Your task to perform on an android device: turn on the 24-hour format for clock Image 0: 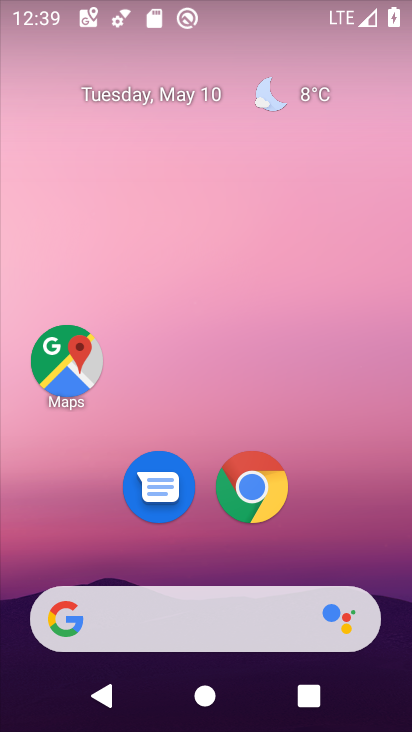
Step 0: drag from (209, 553) to (226, 53)
Your task to perform on an android device: turn on the 24-hour format for clock Image 1: 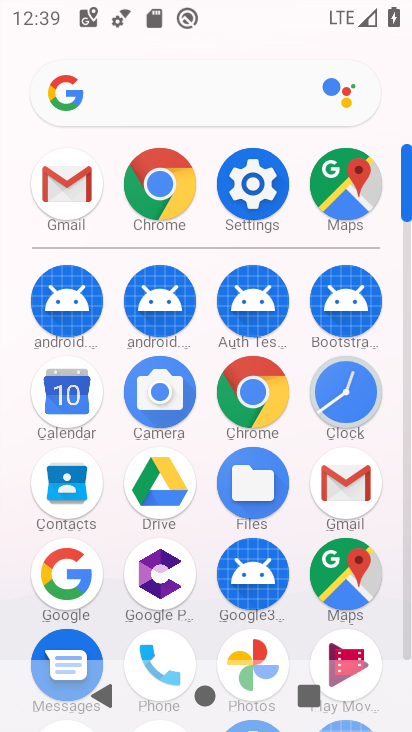
Step 1: drag from (303, 611) to (295, 161)
Your task to perform on an android device: turn on the 24-hour format for clock Image 2: 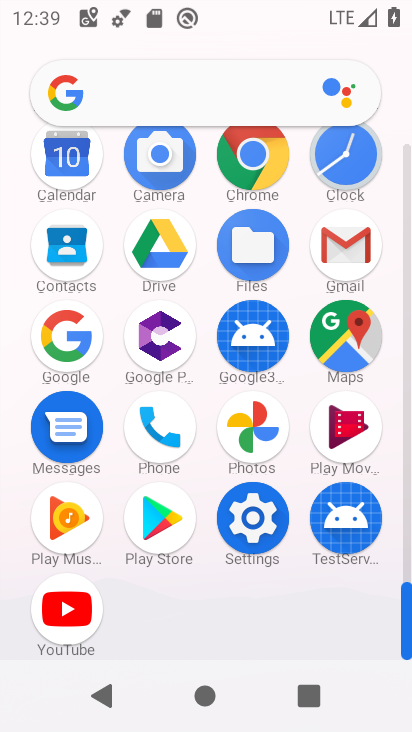
Step 2: click (347, 139)
Your task to perform on an android device: turn on the 24-hour format for clock Image 3: 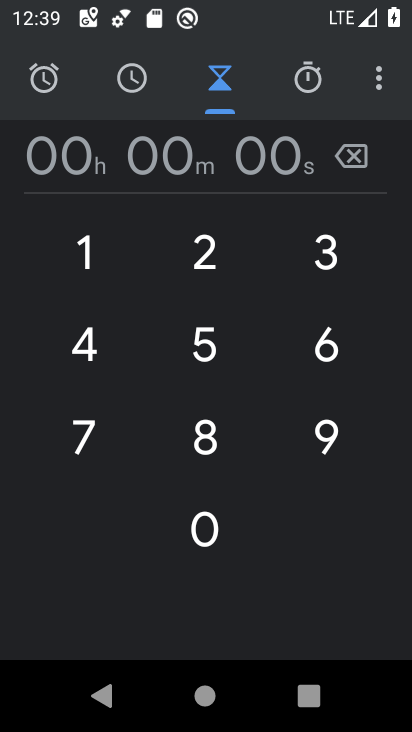
Step 3: click (383, 77)
Your task to perform on an android device: turn on the 24-hour format for clock Image 4: 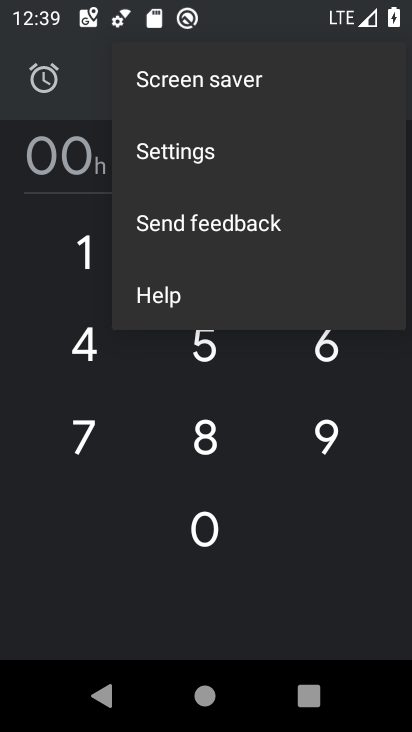
Step 4: click (224, 152)
Your task to perform on an android device: turn on the 24-hour format for clock Image 5: 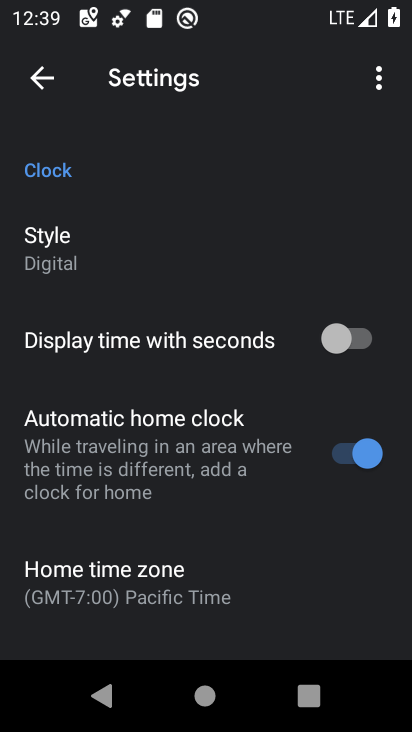
Step 5: drag from (196, 560) to (209, 100)
Your task to perform on an android device: turn on the 24-hour format for clock Image 6: 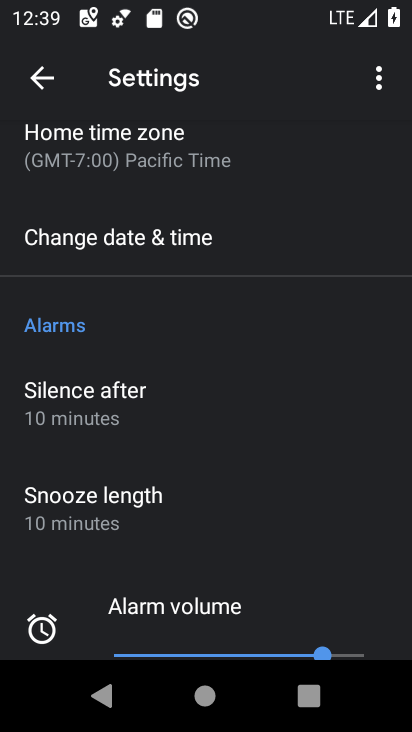
Step 6: click (221, 237)
Your task to perform on an android device: turn on the 24-hour format for clock Image 7: 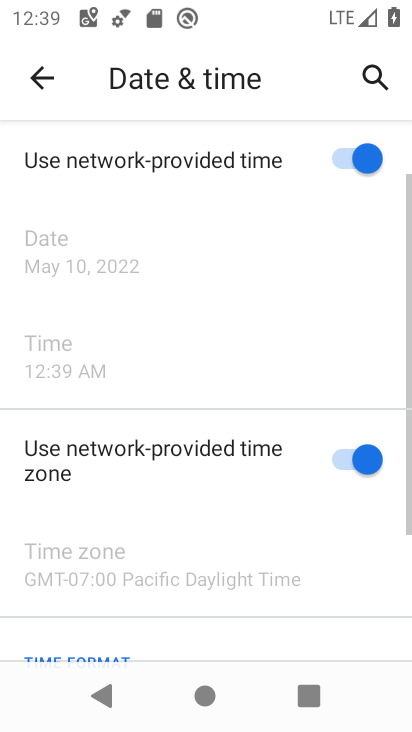
Step 7: drag from (252, 554) to (256, 83)
Your task to perform on an android device: turn on the 24-hour format for clock Image 8: 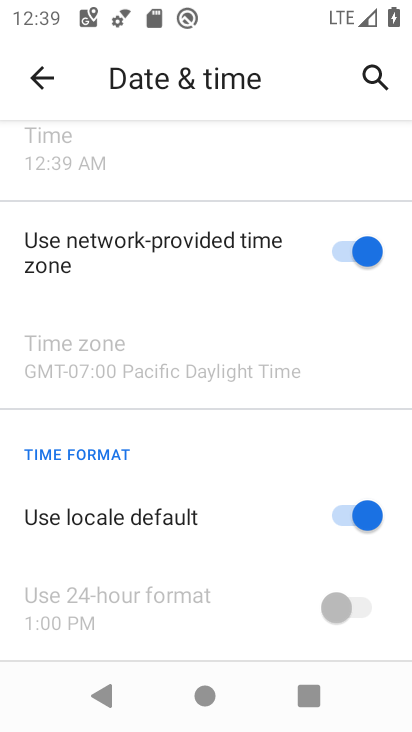
Step 8: click (361, 515)
Your task to perform on an android device: turn on the 24-hour format for clock Image 9: 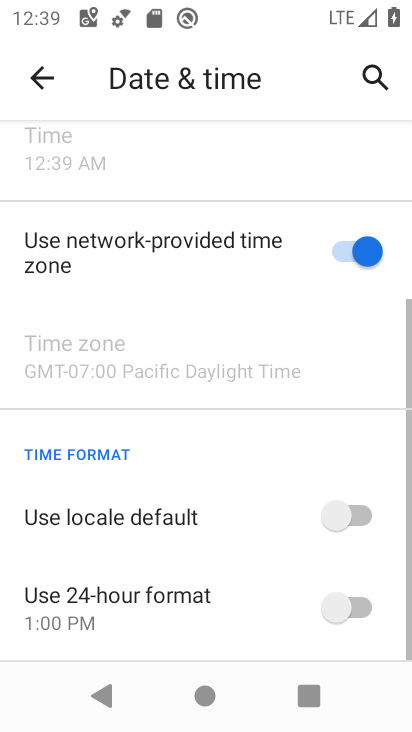
Step 9: click (351, 606)
Your task to perform on an android device: turn on the 24-hour format for clock Image 10: 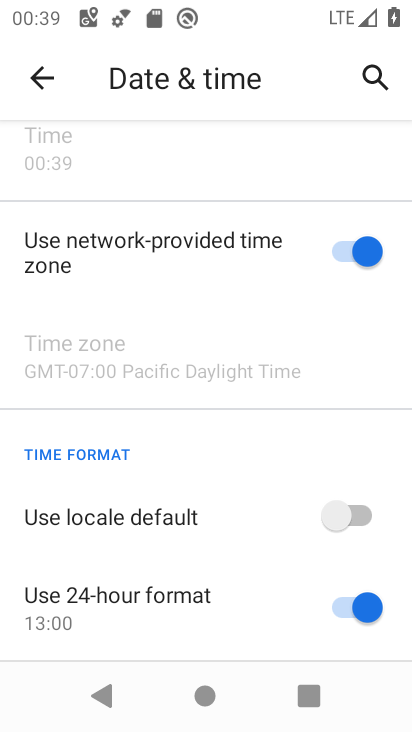
Step 10: task complete